Your task to perform on an android device: Go to Android settings Image 0: 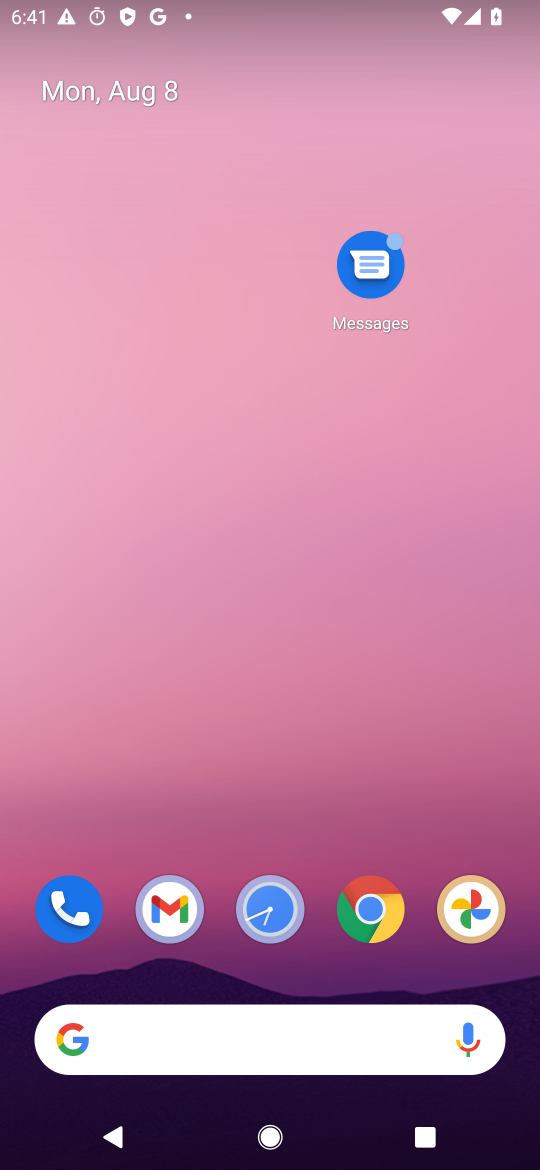
Step 0: press home button
Your task to perform on an android device: Go to Android settings Image 1: 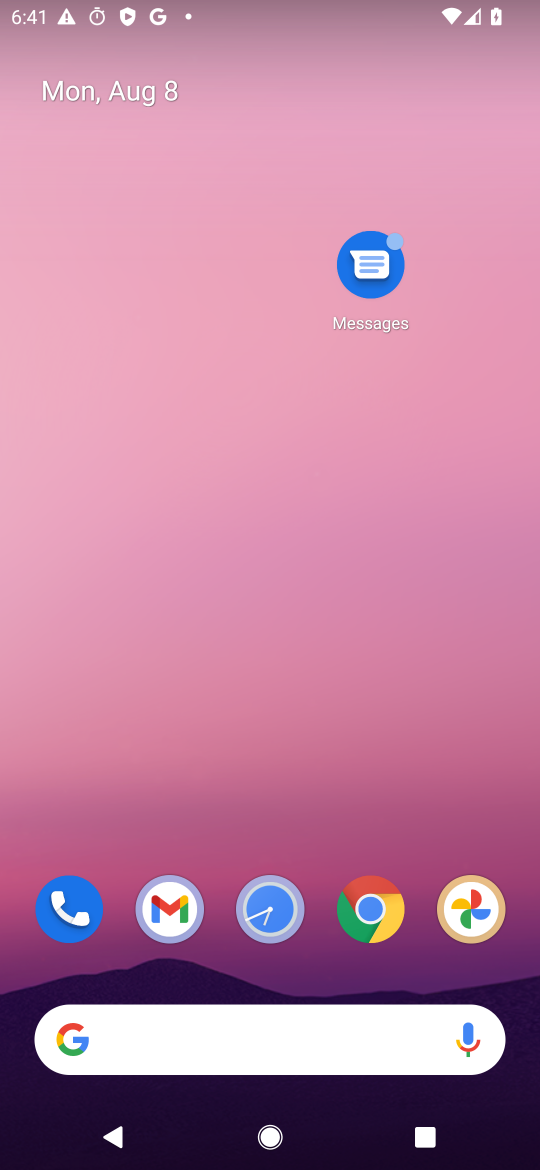
Step 1: drag from (264, 1058) to (422, 55)
Your task to perform on an android device: Go to Android settings Image 2: 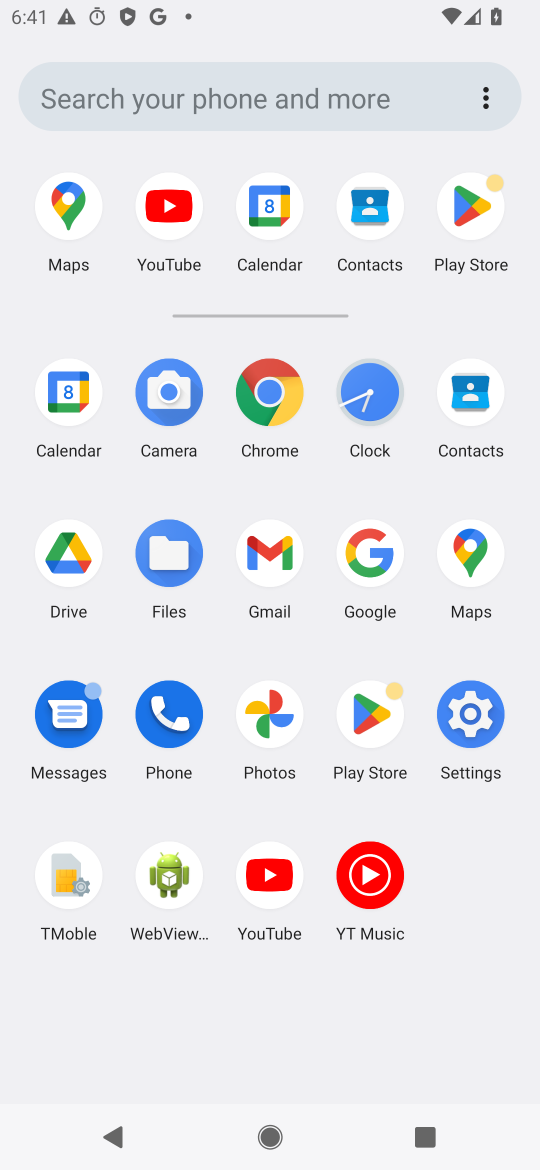
Step 2: click (455, 709)
Your task to perform on an android device: Go to Android settings Image 3: 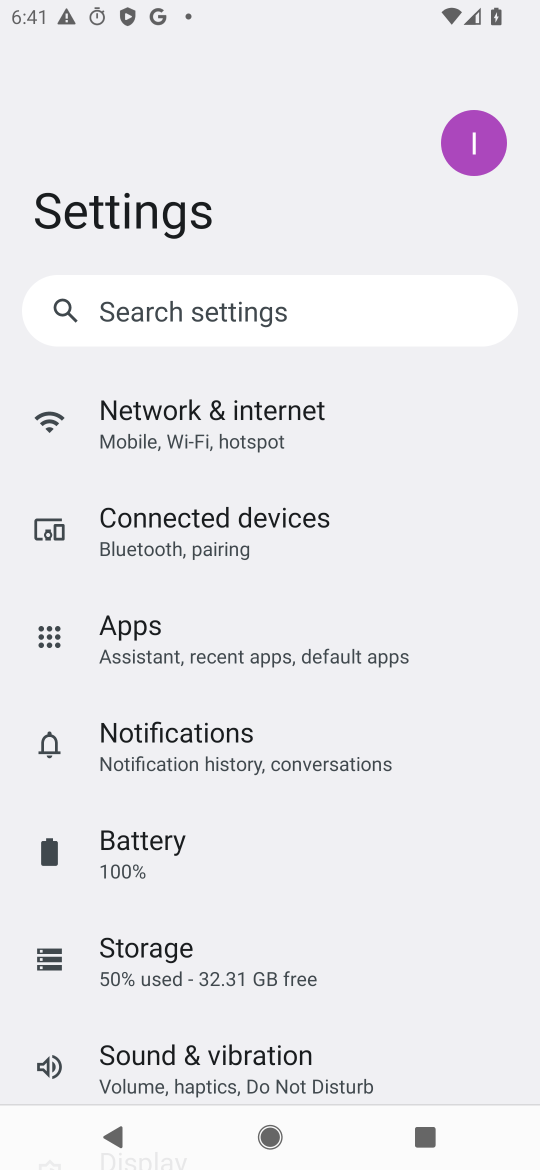
Step 3: task complete